Your task to perform on an android device: Open the calendar and show me this week's events Image 0: 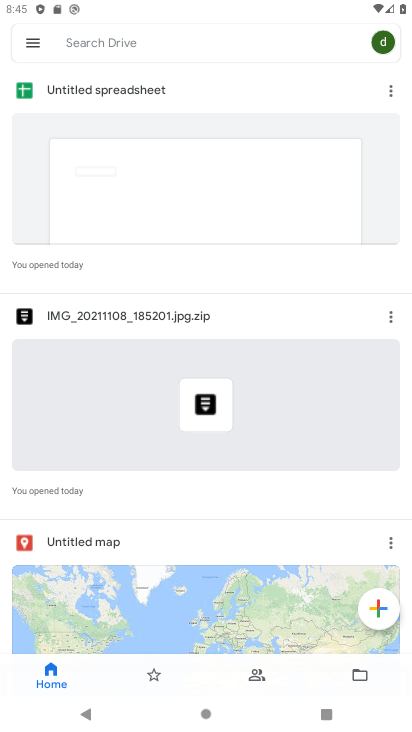
Step 0: press home button
Your task to perform on an android device: Open the calendar and show me this week's events Image 1: 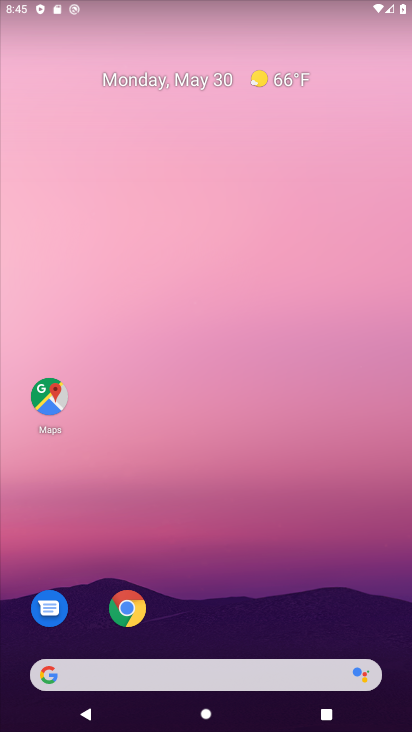
Step 1: drag from (228, 594) to (213, 99)
Your task to perform on an android device: Open the calendar and show me this week's events Image 2: 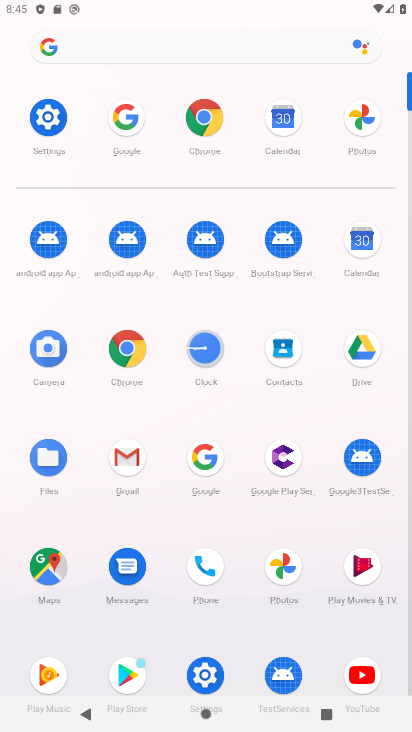
Step 2: click (368, 234)
Your task to perform on an android device: Open the calendar and show me this week's events Image 3: 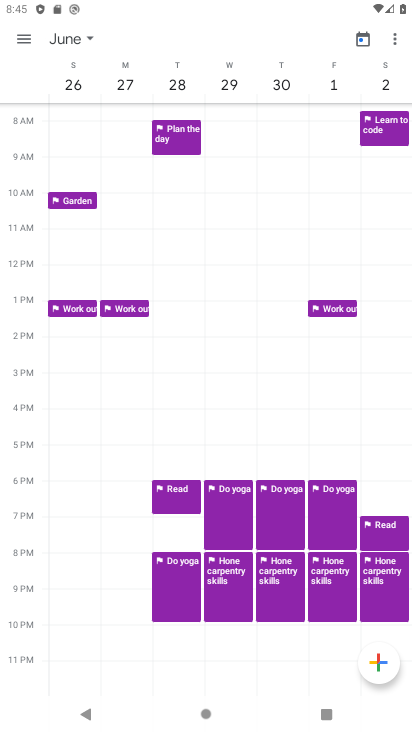
Step 3: click (89, 36)
Your task to perform on an android device: Open the calendar and show me this week's events Image 4: 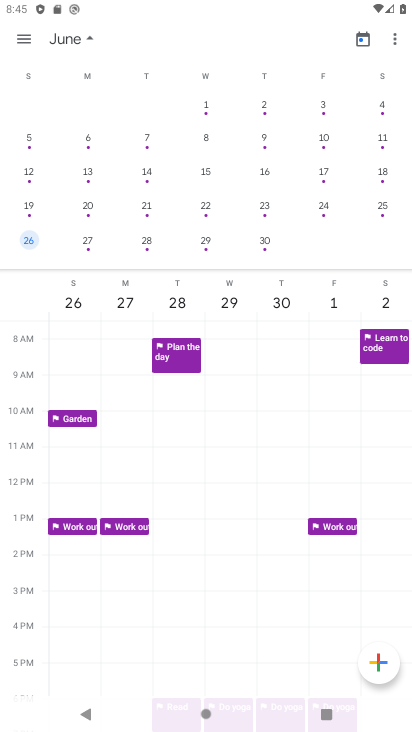
Step 4: drag from (49, 205) to (401, 169)
Your task to perform on an android device: Open the calendar and show me this week's events Image 5: 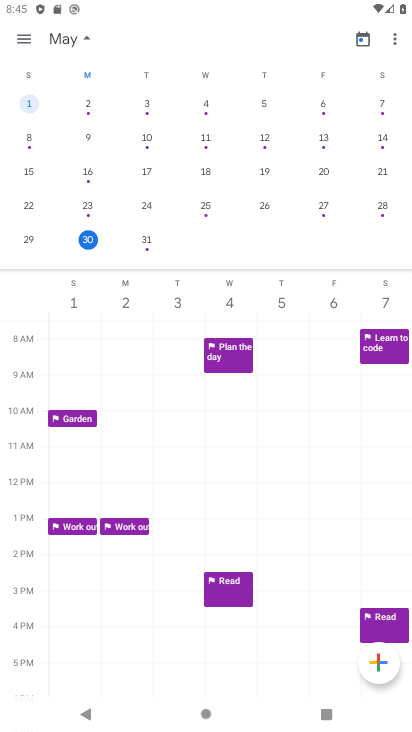
Step 5: click (25, 36)
Your task to perform on an android device: Open the calendar and show me this week's events Image 6: 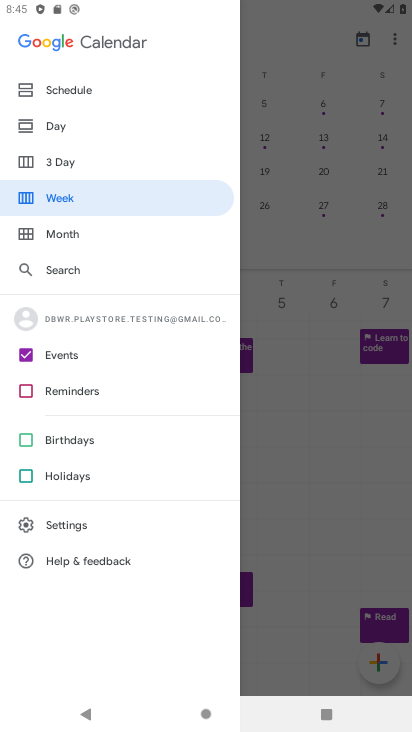
Step 6: click (72, 201)
Your task to perform on an android device: Open the calendar and show me this week's events Image 7: 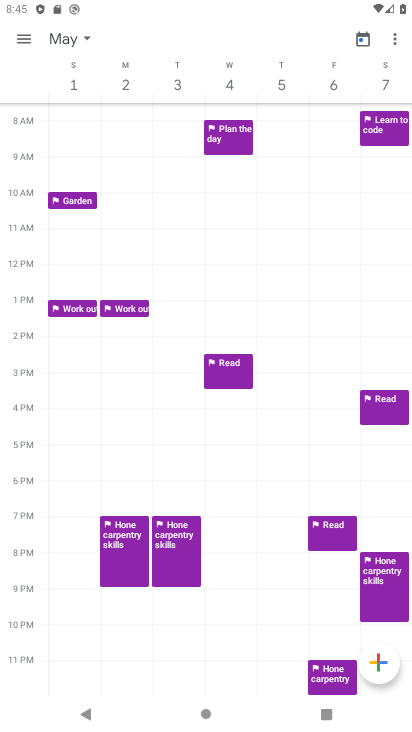
Step 7: task complete